Your task to perform on an android device: Open Yahoo.com Image 0: 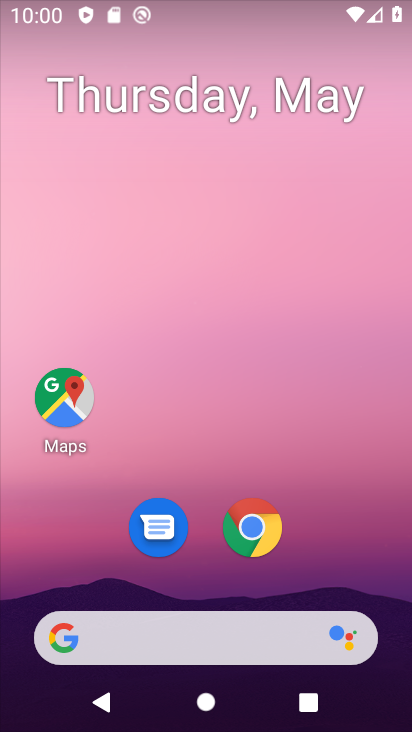
Step 0: click (255, 537)
Your task to perform on an android device: Open Yahoo.com Image 1: 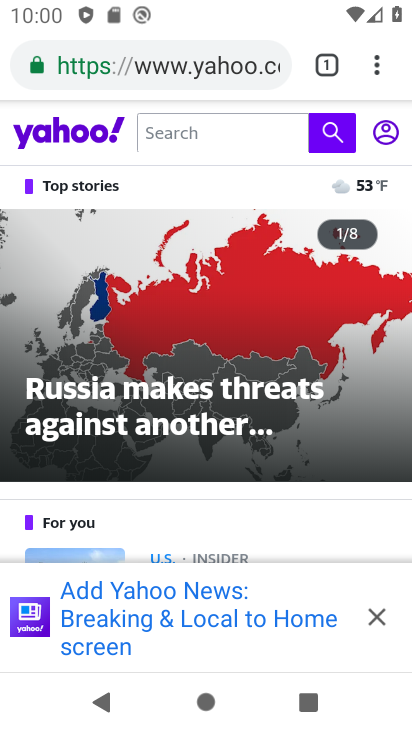
Step 1: task complete